Your task to perform on an android device: open app "Google Translate" Image 0: 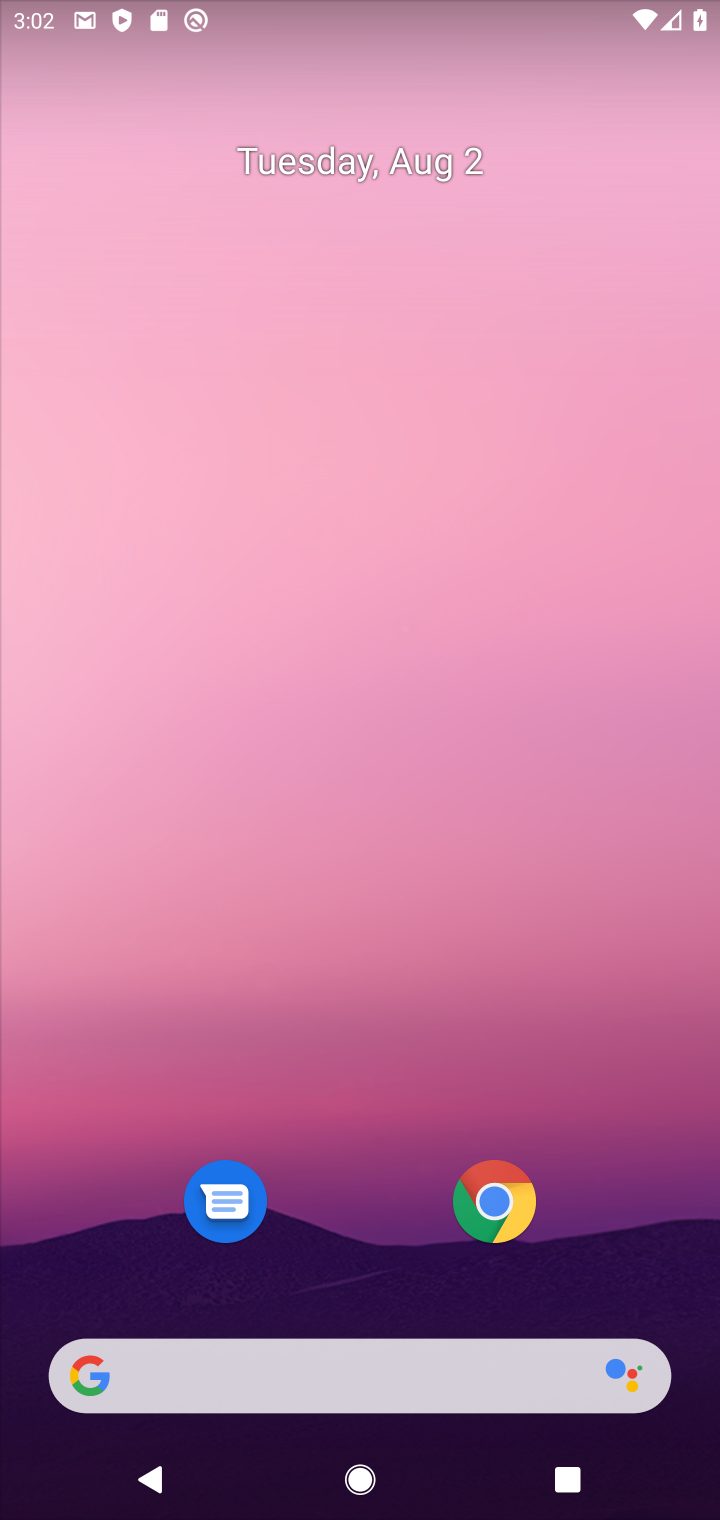
Step 0: drag from (366, 1285) to (442, 138)
Your task to perform on an android device: open app "Google Translate" Image 1: 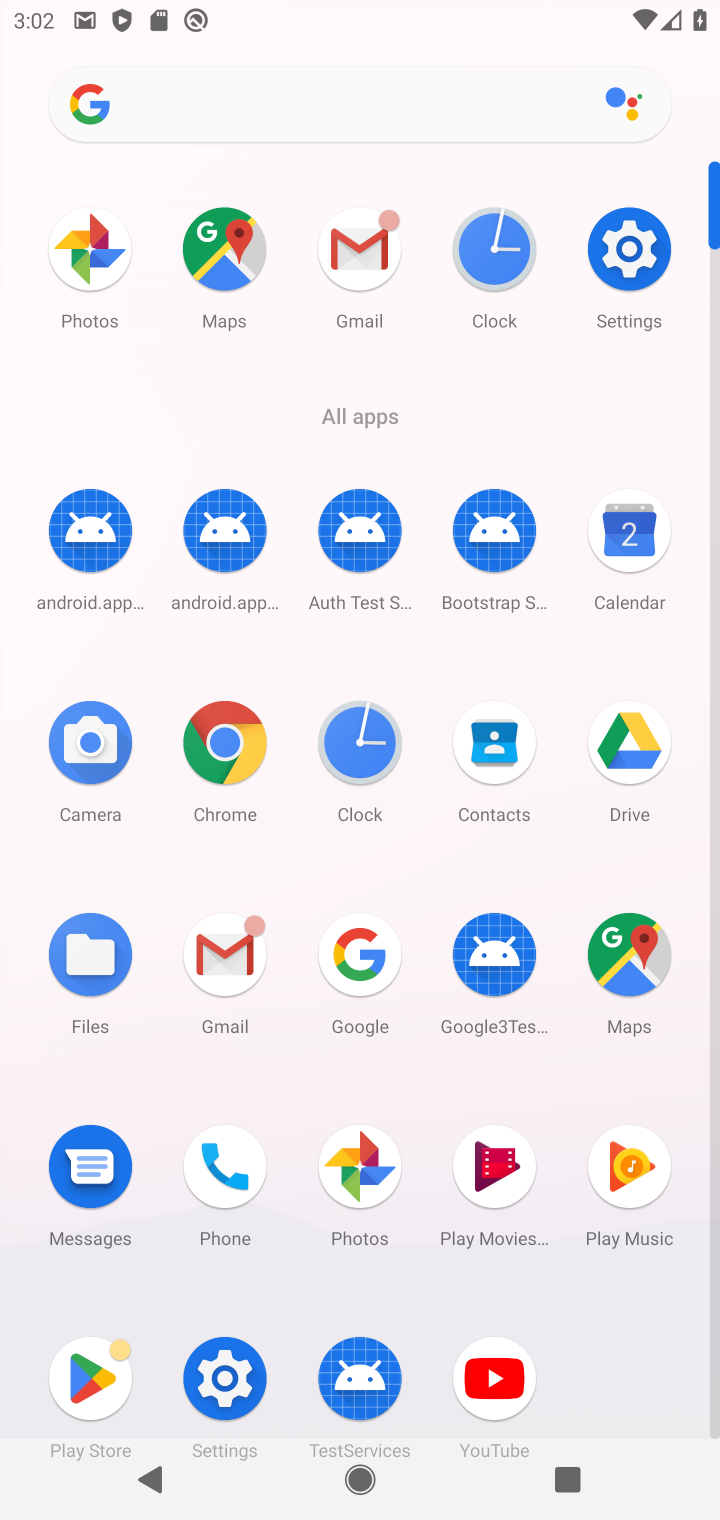
Step 1: click (85, 1366)
Your task to perform on an android device: open app "Google Translate" Image 2: 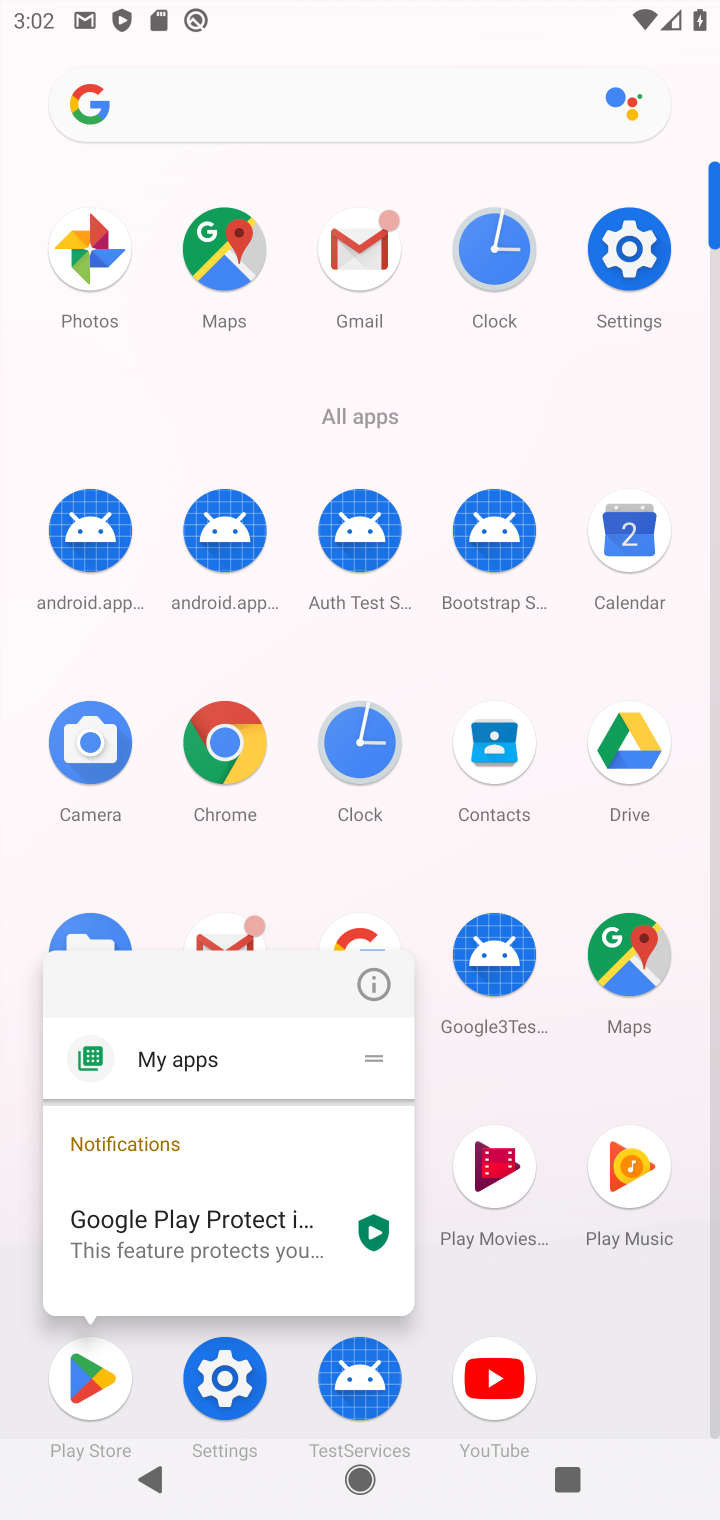
Step 2: click (95, 1387)
Your task to perform on an android device: open app "Google Translate" Image 3: 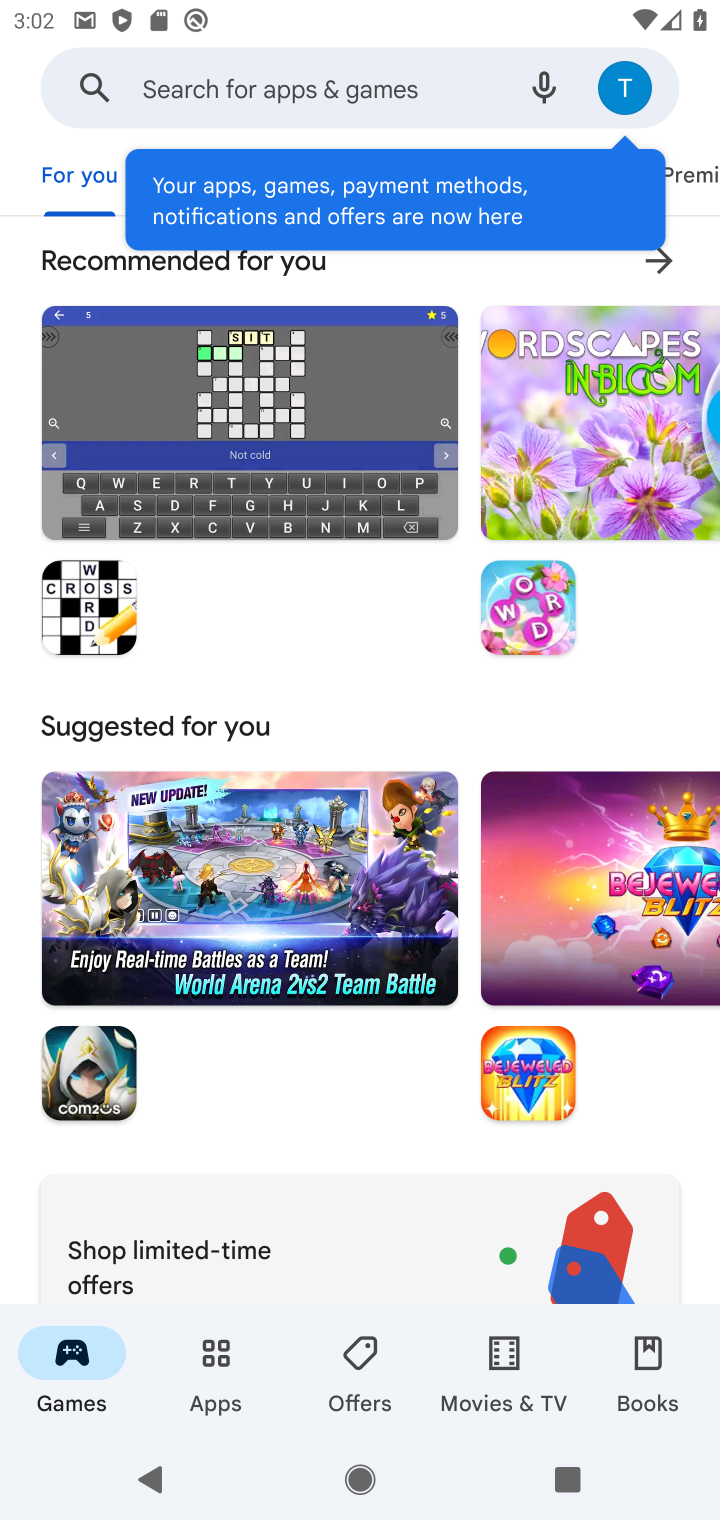
Step 3: click (320, 77)
Your task to perform on an android device: open app "Google Translate" Image 4: 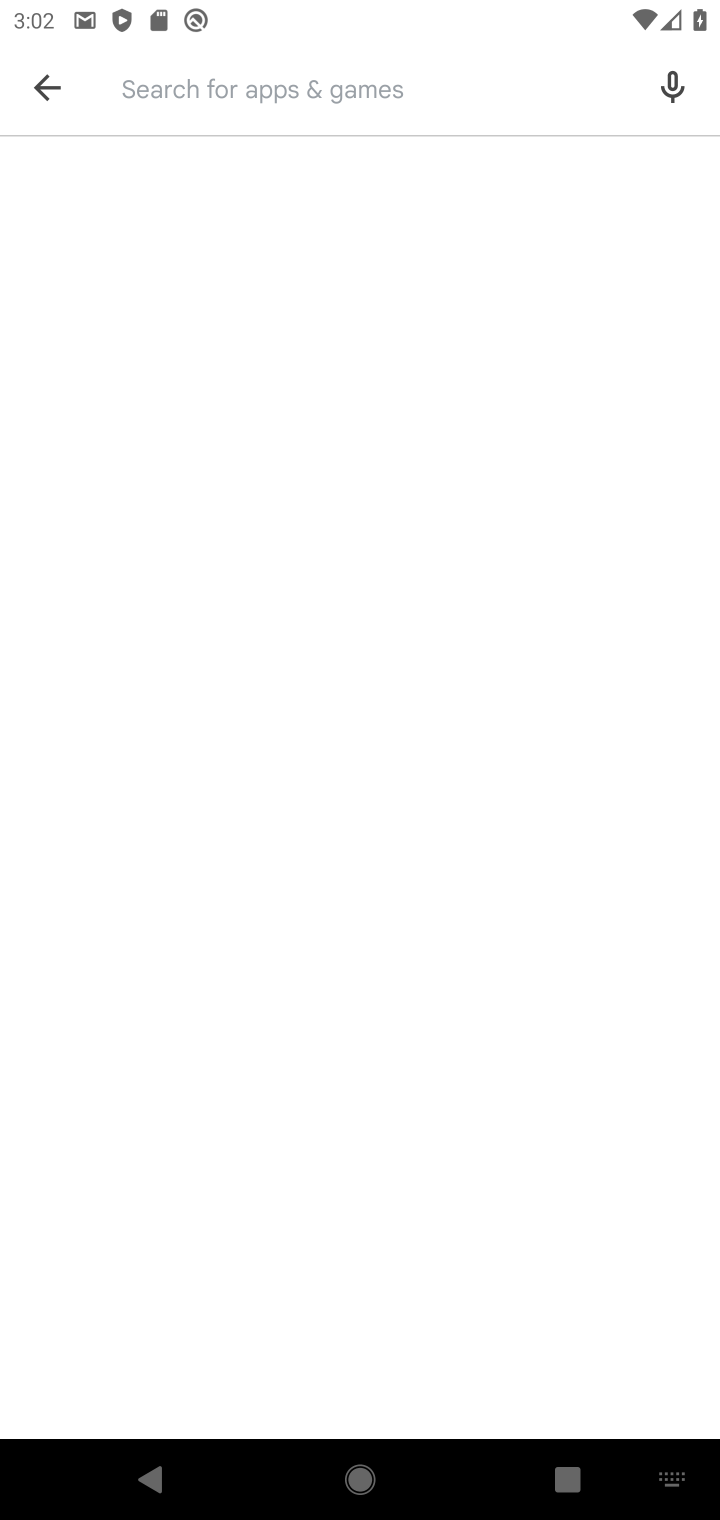
Step 4: type "Google translate"
Your task to perform on an android device: open app "Google Translate" Image 5: 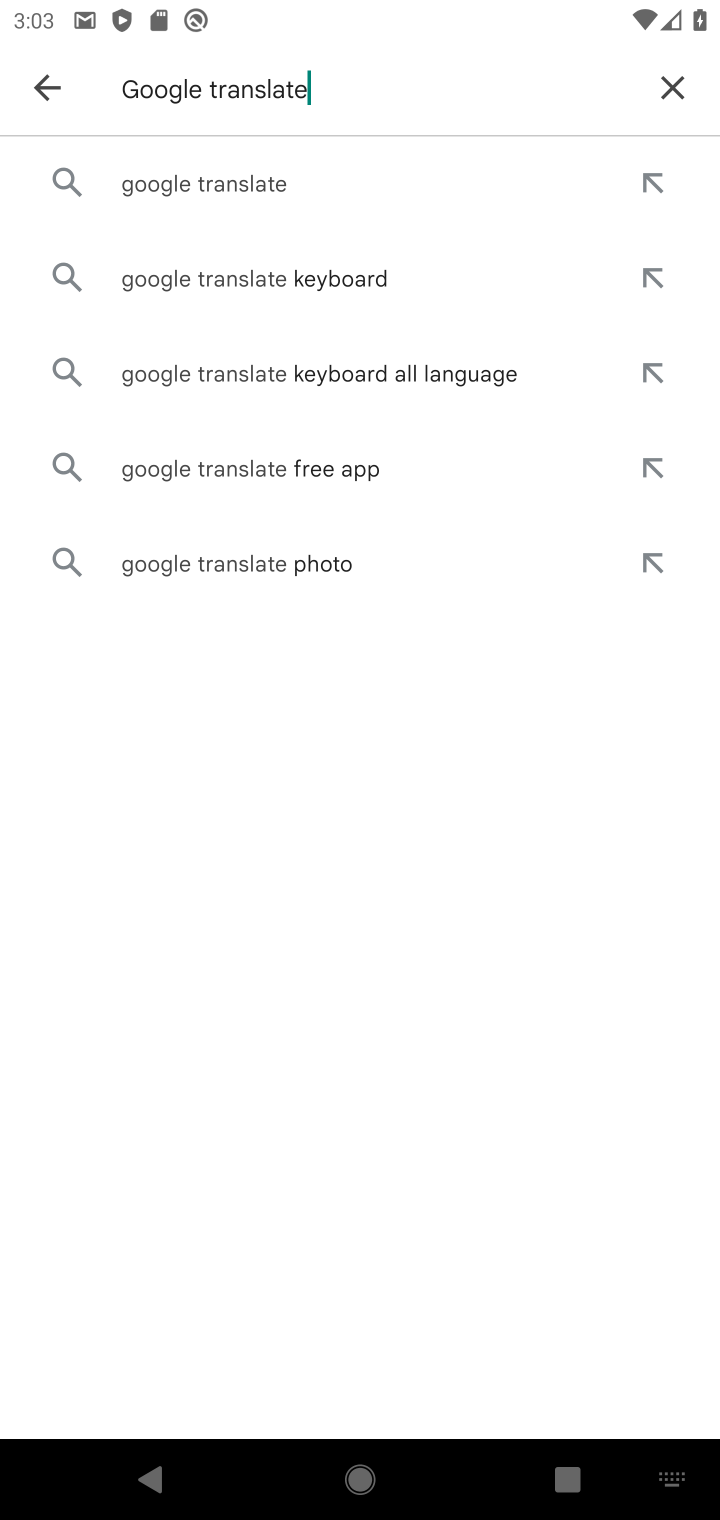
Step 5: click (286, 166)
Your task to perform on an android device: open app "Google Translate" Image 6: 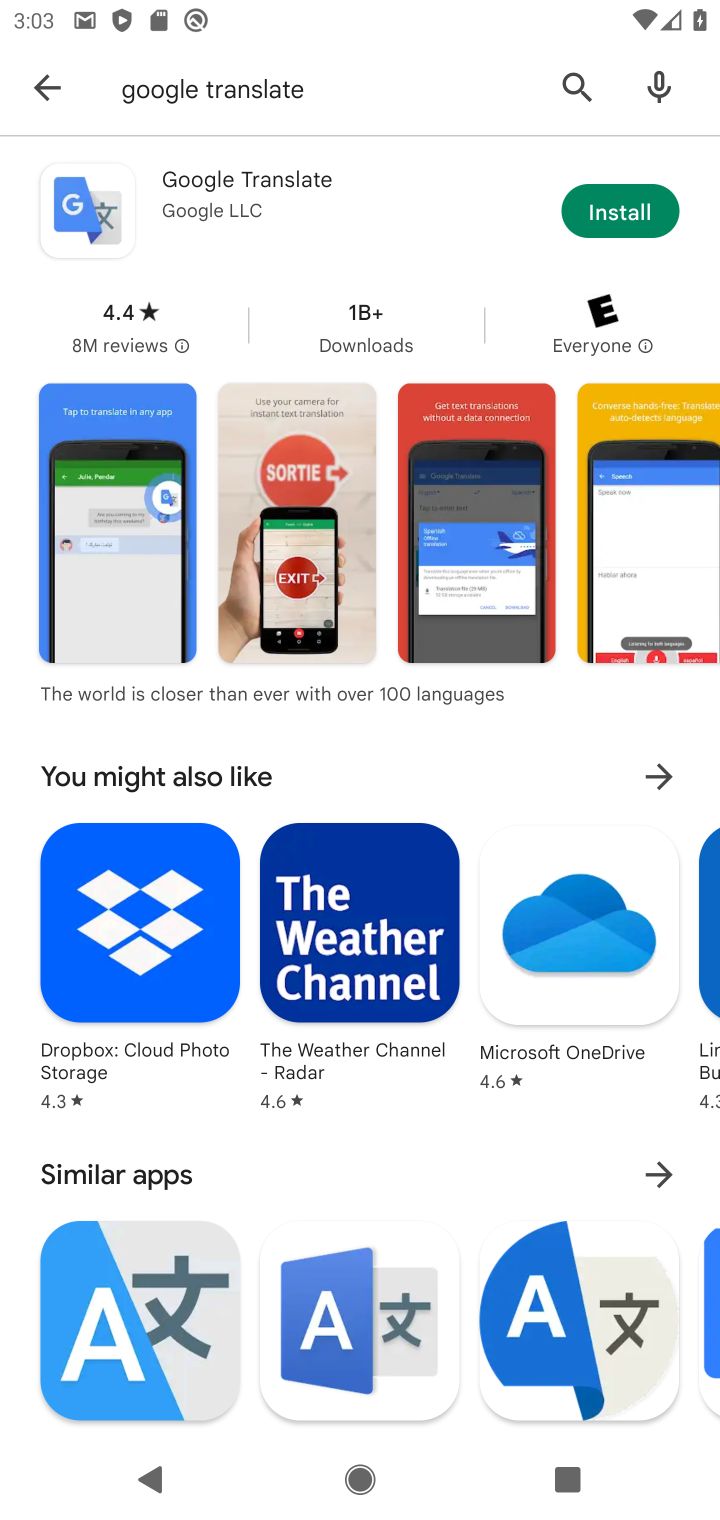
Step 6: task complete